Your task to perform on an android device: turn on translation in the chrome app Image 0: 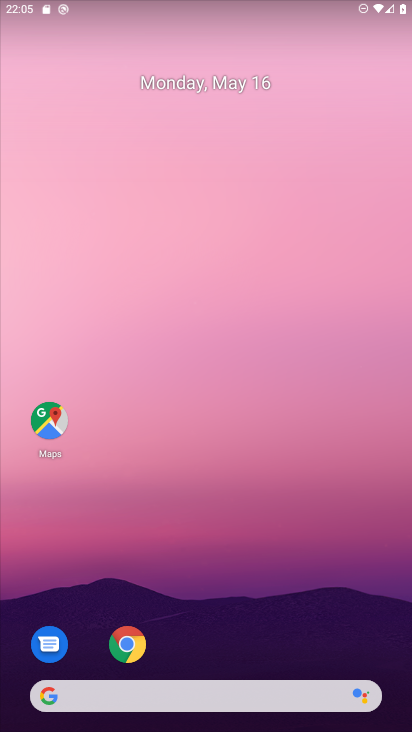
Step 0: click (119, 646)
Your task to perform on an android device: turn on translation in the chrome app Image 1: 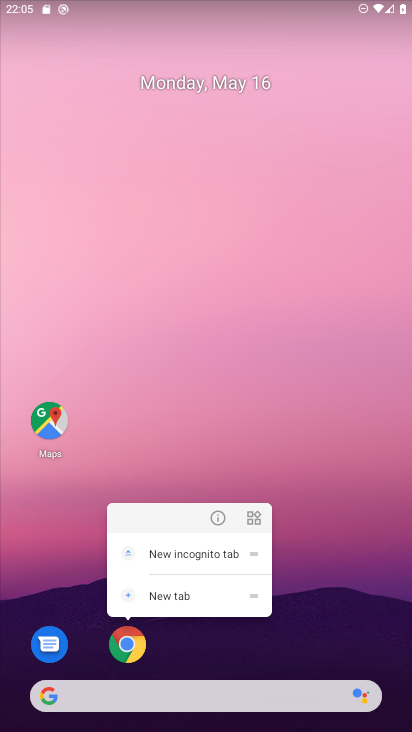
Step 1: click (121, 641)
Your task to perform on an android device: turn on translation in the chrome app Image 2: 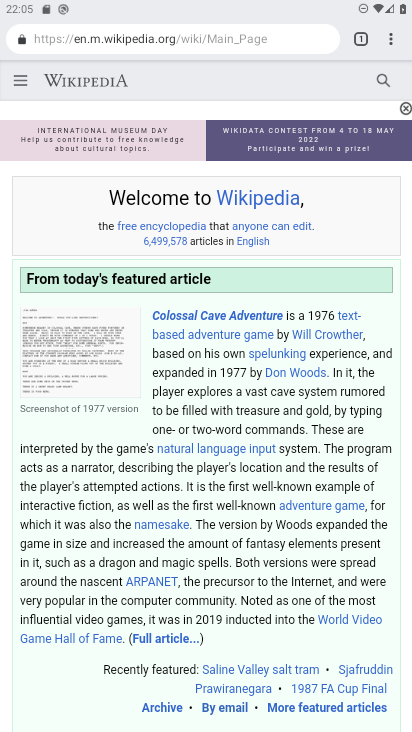
Step 2: click (388, 37)
Your task to perform on an android device: turn on translation in the chrome app Image 3: 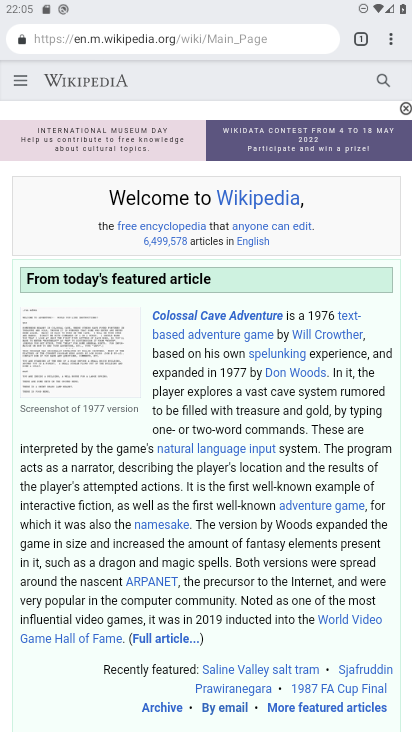
Step 3: click (389, 38)
Your task to perform on an android device: turn on translation in the chrome app Image 4: 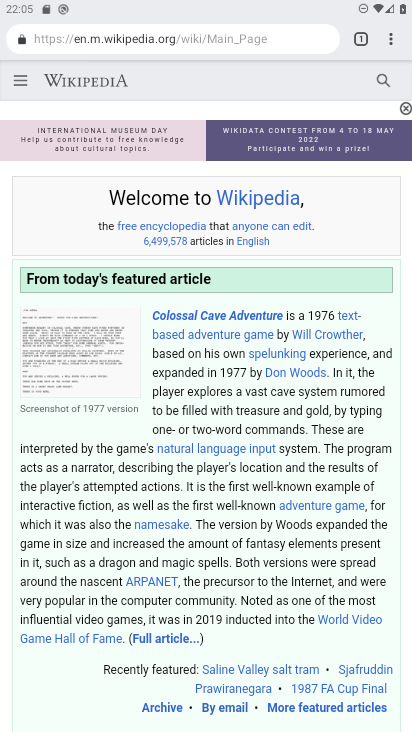
Step 4: click (395, 38)
Your task to perform on an android device: turn on translation in the chrome app Image 5: 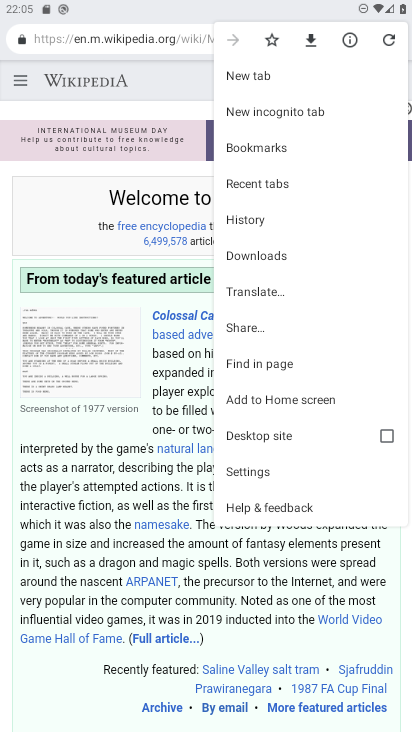
Step 5: click (240, 467)
Your task to perform on an android device: turn on translation in the chrome app Image 6: 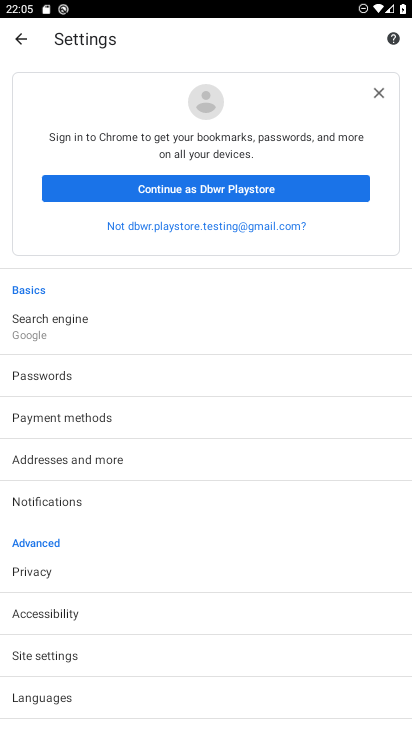
Step 6: drag from (36, 697) to (139, 401)
Your task to perform on an android device: turn on translation in the chrome app Image 7: 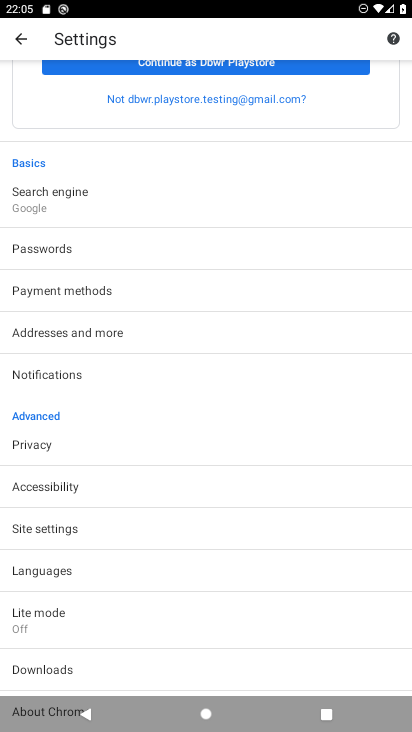
Step 7: click (34, 565)
Your task to perform on an android device: turn on translation in the chrome app Image 8: 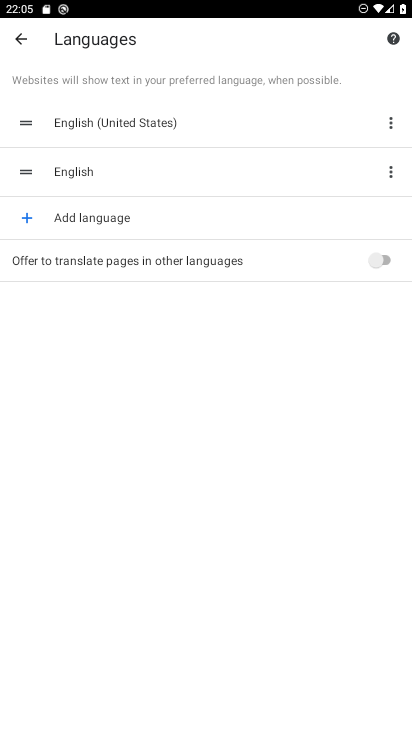
Step 8: click (373, 262)
Your task to perform on an android device: turn on translation in the chrome app Image 9: 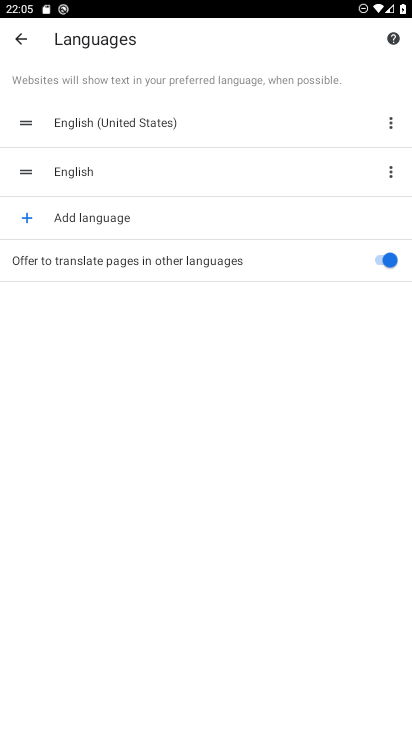
Step 9: task complete